Your task to perform on an android device: check out phone information Image 0: 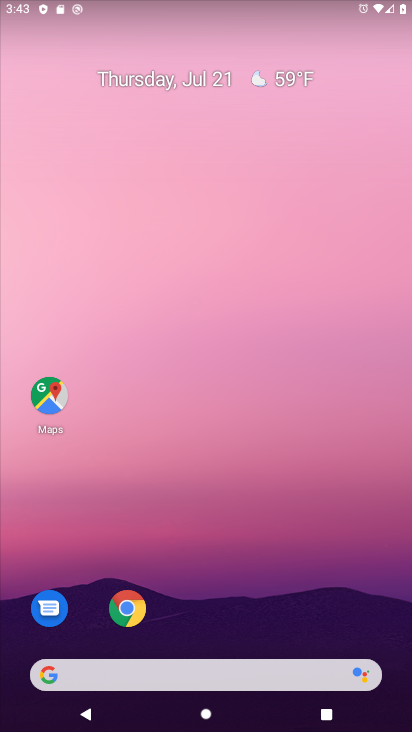
Step 0: drag from (221, 668) to (228, 94)
Your task to perform on an android device: check out phone information Image 1: 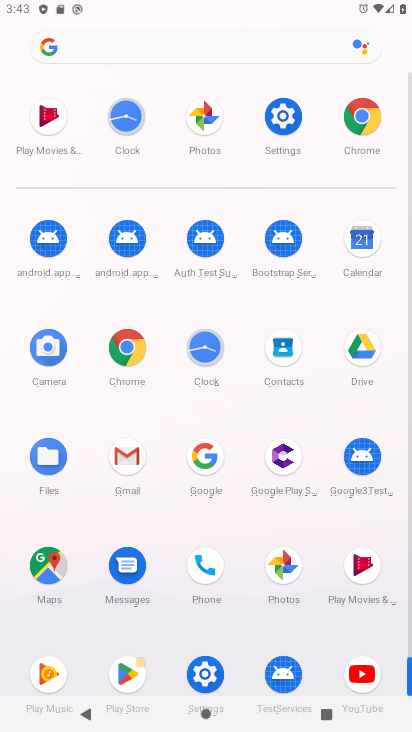
Step 1: click (278, 120)
Your task to perform on an android device: check out phone information Image 2: 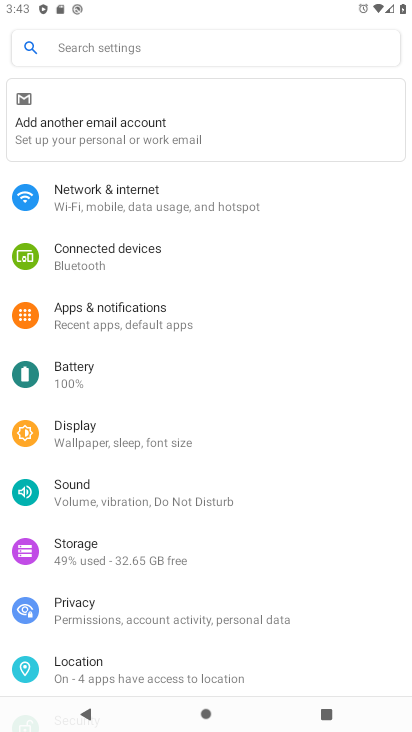
Step 2: drag from (224, 632) to (242, 164)
Your task to perform on an android device: check out phone information Image 3: 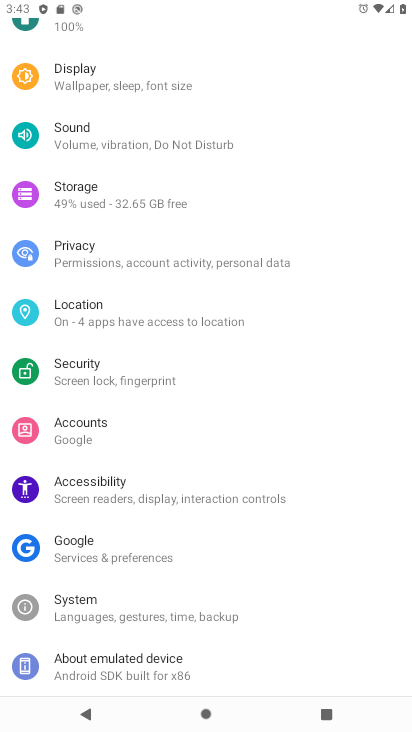
Step 3: click (163, 670)
Your task to perform on an android device: check out phone information Image 4: 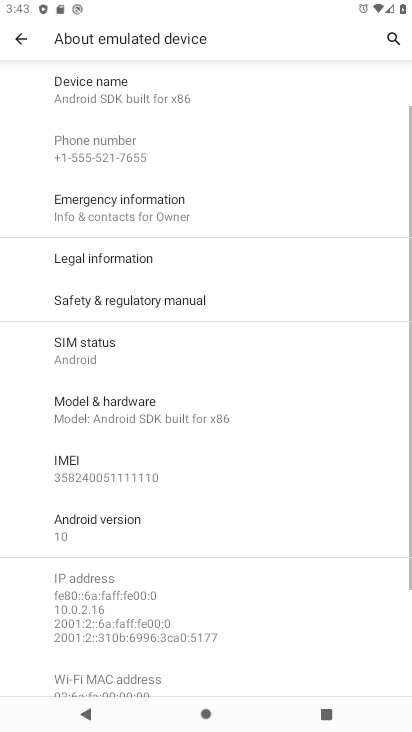
Step 4: task complete